Your task to perform on an android device: change notification settings in the gmail app Image 0: 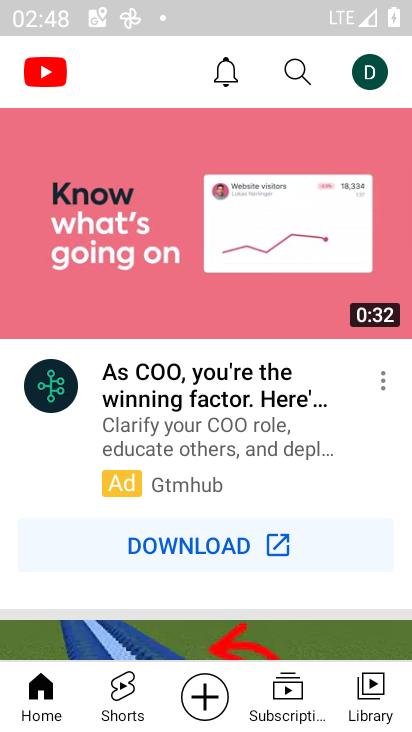
Step 0: press home button
Your task to perform on an android device: change notification settings in the gmail app Image 1: 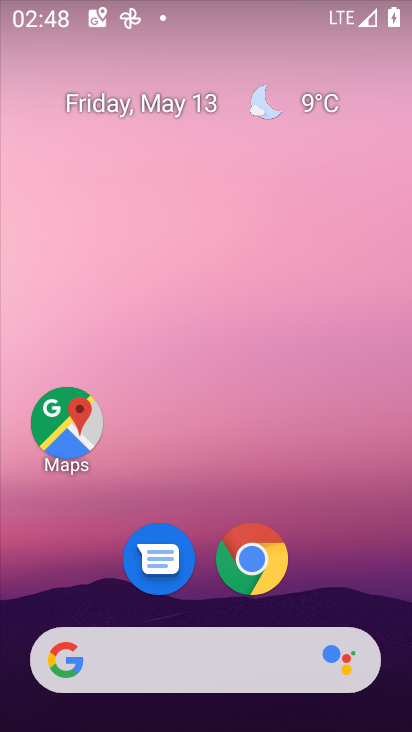
Step 1: click (284, 624)
Your task to perform on an android device: change notification settings in the gmail app Image 2: 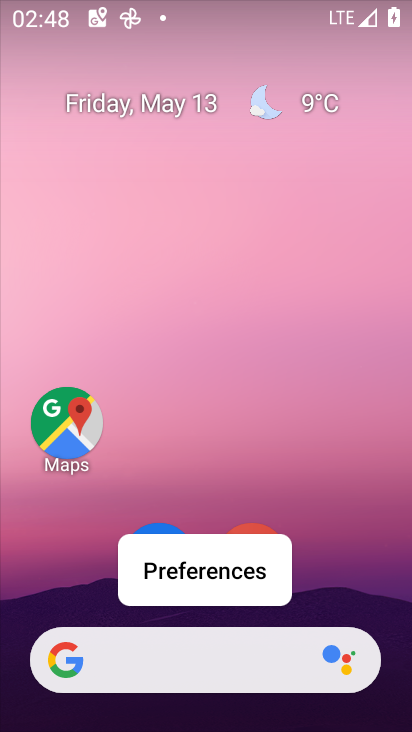
Step 2: click (285, 613)
Your task to perform on an android device: change notification settings in the gmail app Image 3: 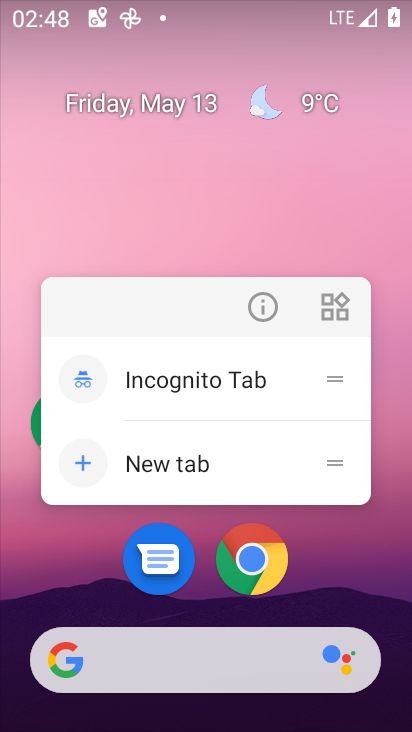
Step 3: click (344, 560)
Your task to perform on an android device: change notification settings in the gmail app Image 4: 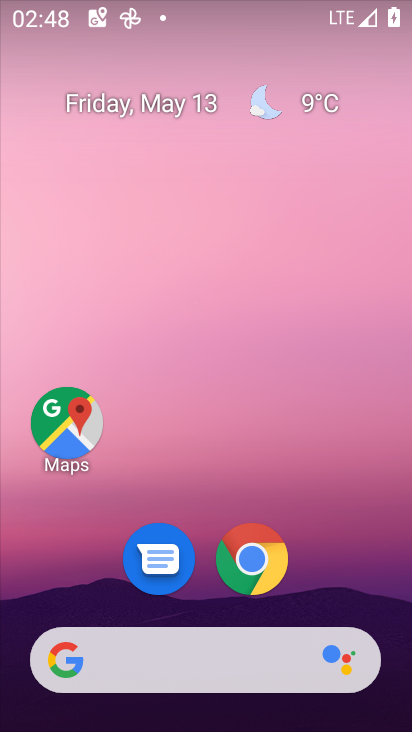
Step 4: drag from (400, 585) to (366, 334)
Your task to perform on an android device: change notification settings in the gmail app Image 5: 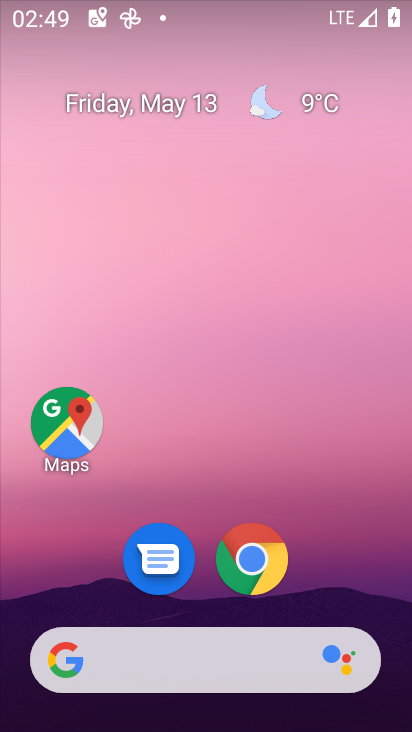
Step 5: drag from (384, 654) to (387, 403)
Your task to perform on an android device: change notification settings in the gmail app Image 6: 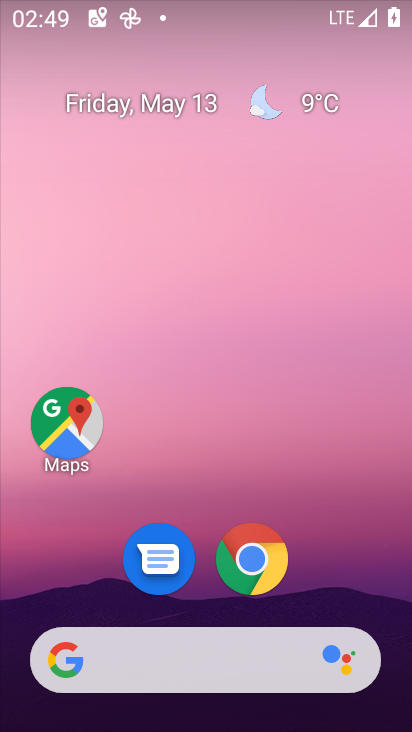
Step 6: drag from (391, 638) to (363, 304)
Your task to perform on an android device: change notification settings in the gmail app Image 7: 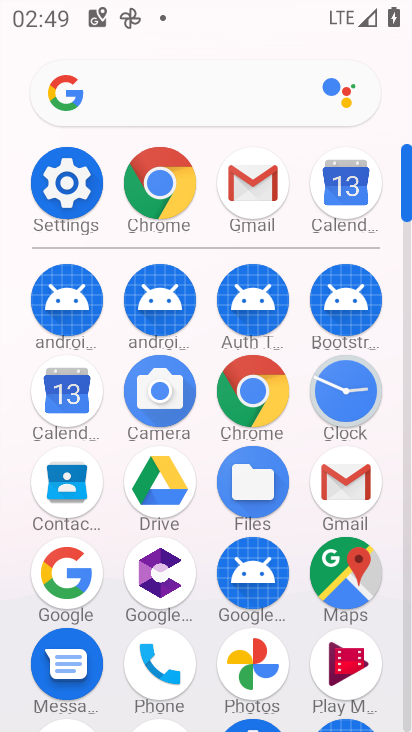
Step 7: click (344, 496)
Your task to perform on an android device: change notification settings in the gmail app Image 8: 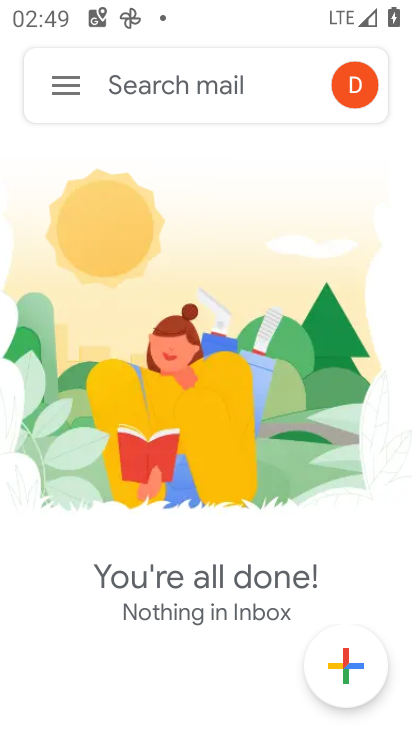
Step 8: click (61, 85)
Your task to perform on an android device: change notification settings in the gmail app Image 9: 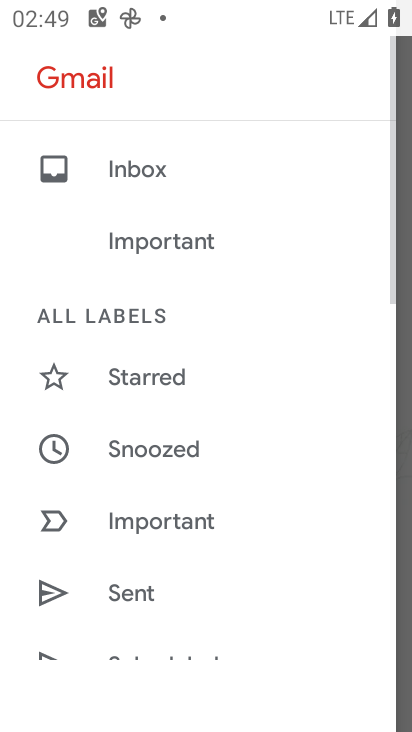
Step 9: drag from (292, 611) to (293, 316)
Your task to perform on an android device: change notification settings in the gmail app Image 10: 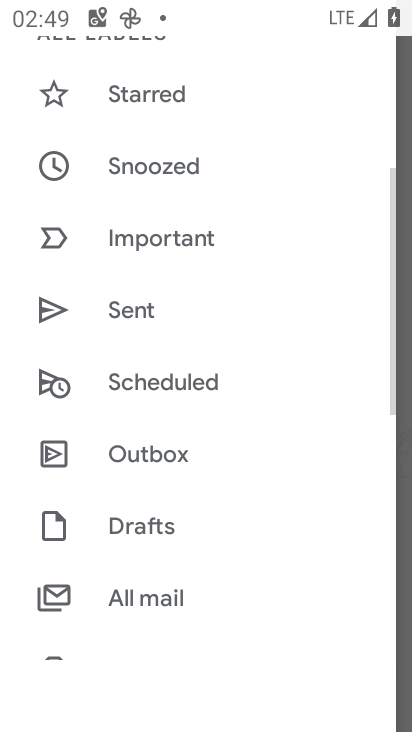
Step 10: drag from (288, 612) to (288, 346)
Your task to perform on an android device: change notification settings in the gmail app Image 11: 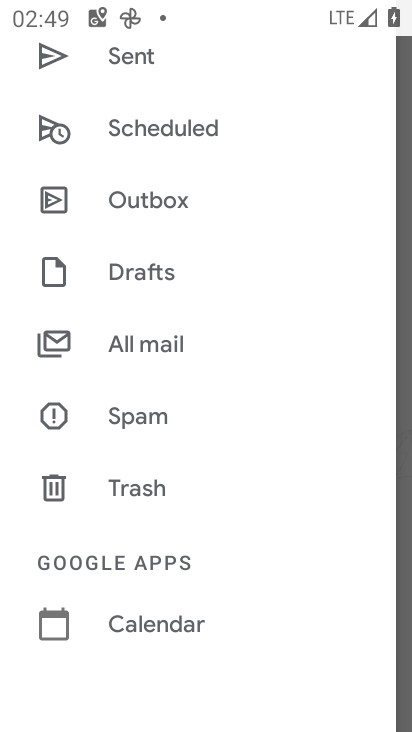
Step 11: drag from (340, 636) to (323, 362)
Your task to perform on an android device: change notification settings in the gmail app Image 12: 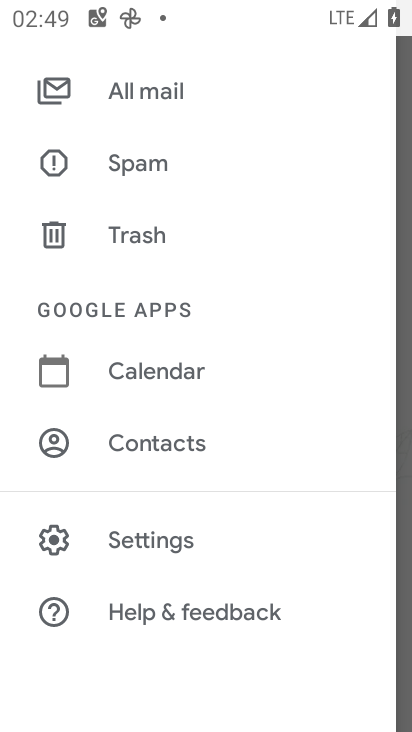
Step 12: click (112, 552)
Your task to perform on an android device: change notification settings in the gmail app Image 13: 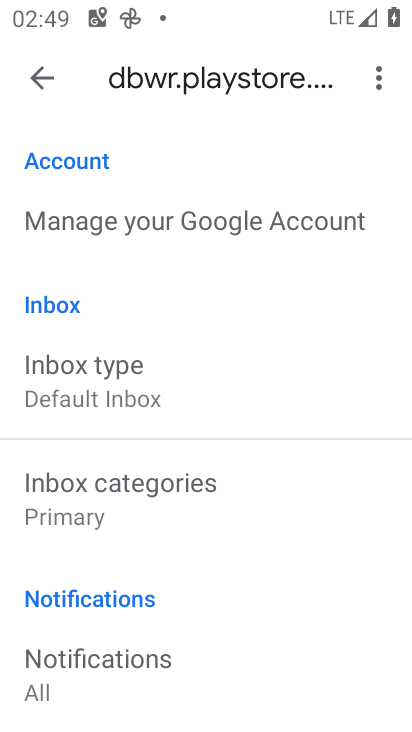
Step 13: click (103, 219)
Your task to perform on an android device: change notification settings in the gmail app Image 14: 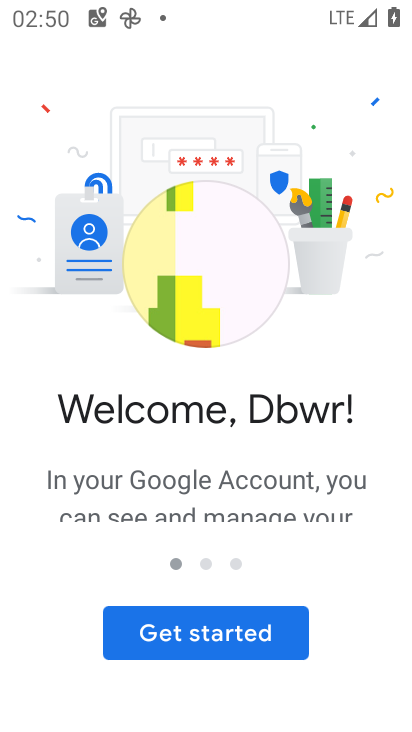
Step 14: press back button
Your task to perform on an android device: change notification settings in the gmail app Image 15: 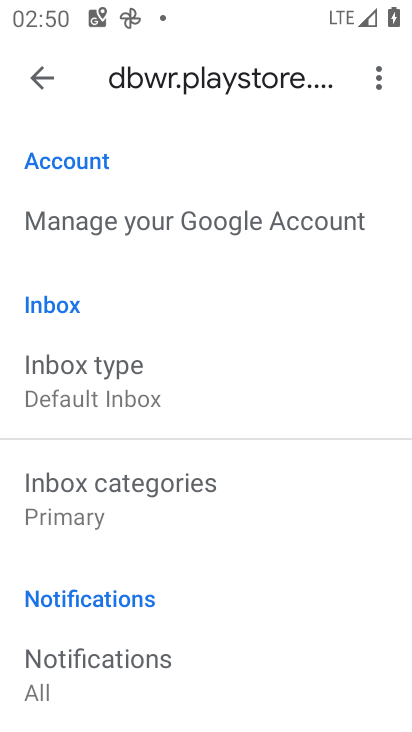
Step 15: click (70, 599)
Your task to perform on an android device: change notification settings in the gmail app Image 16: 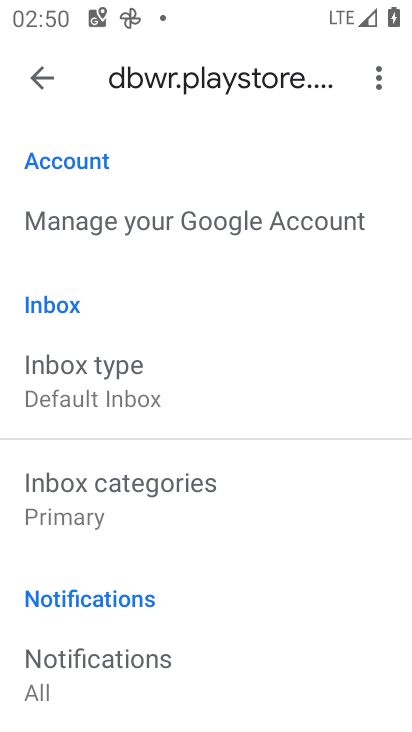
Step 16: click (78, 660)
Your task to perform on an android device: change notification settings in the gmail app Image 17: 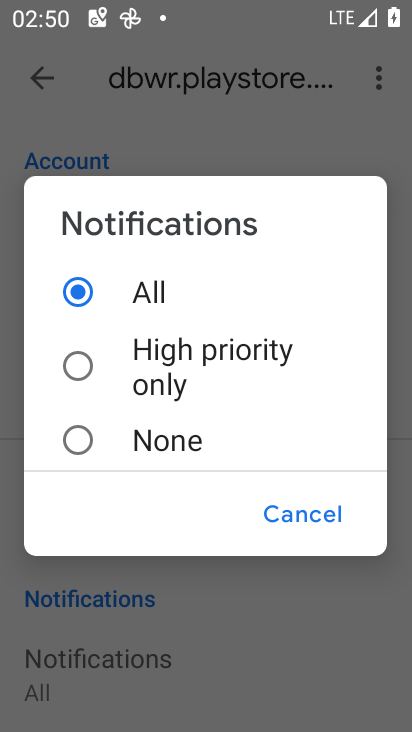
Step 17: click (66, 362)
Your task to perform on an android device: change notification settings in the gmail app Image 18: 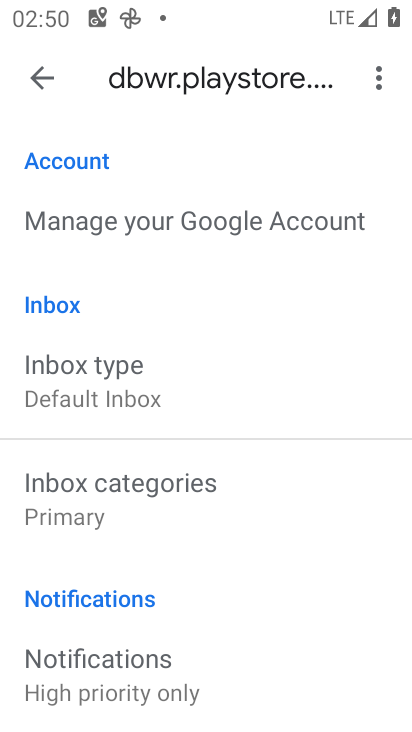
Step 18: task complete